Your task to perform on an android device: Go to Android settings Image 0: 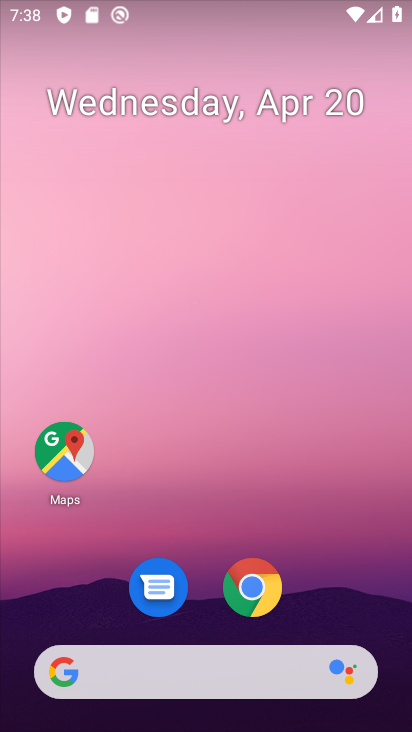
Step 0: drag from (346, 598) to (386, 84)
Your task to perform on an android device: Go to Android settings Image 1: 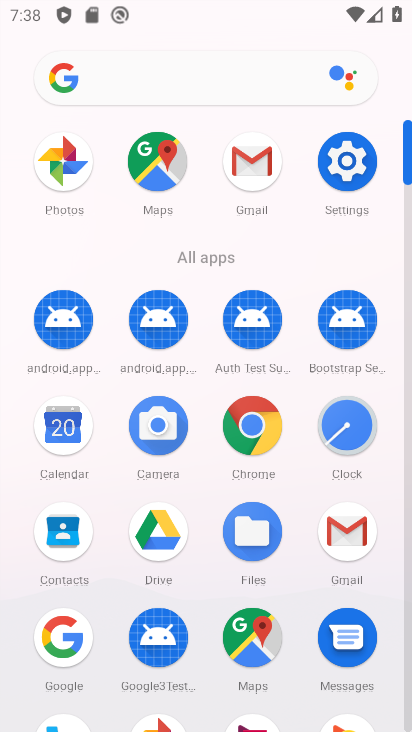
Step 1: click (344, 171)
Your task to perform on an android device: Go to Android settings Image 2: 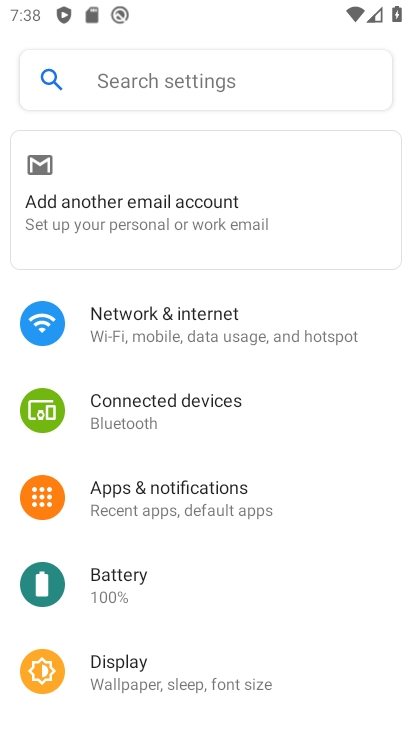
Step 2: drag from (372, 591) to (368, 274)
Your task to perform on an android device: Go to Android settings Image 3: 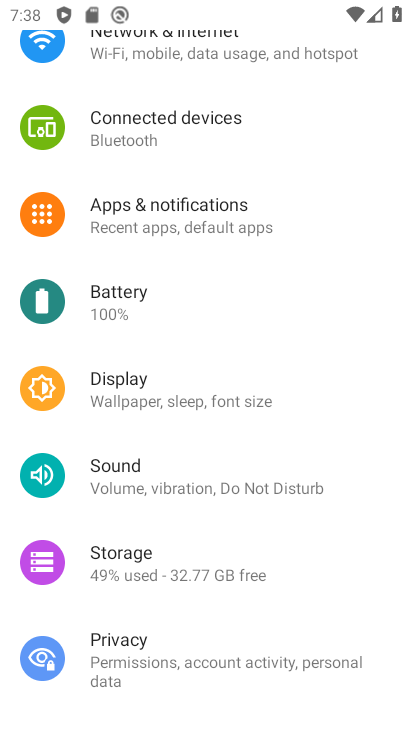
Step 3: drag from (355, 566) to (371, 243)
Your task to perform on an android device: Go to Android settings Image 4: 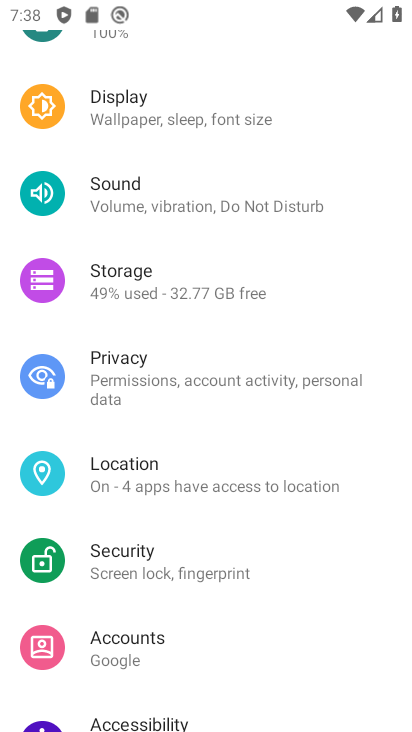
Step 4: drag from (358, 630) to (380, 246)
Your task to perform on an android device: Go to Android settings Image 5: 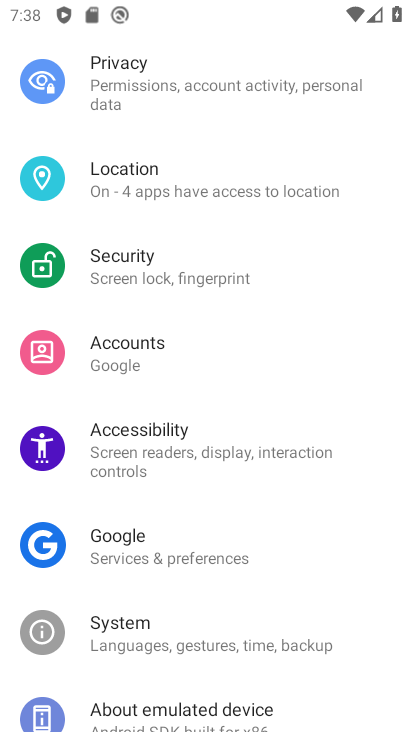
Step 5: drag from (374, 642) to (382, 352)
Your task to perform on an android device: Go to Android settings Image 6: 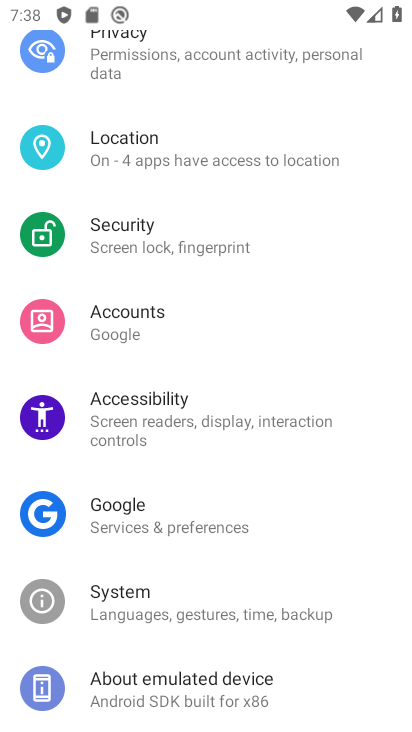
Step 6: click (312, 609)
Your task to perform on an android device: Go to Android settings Image 7: 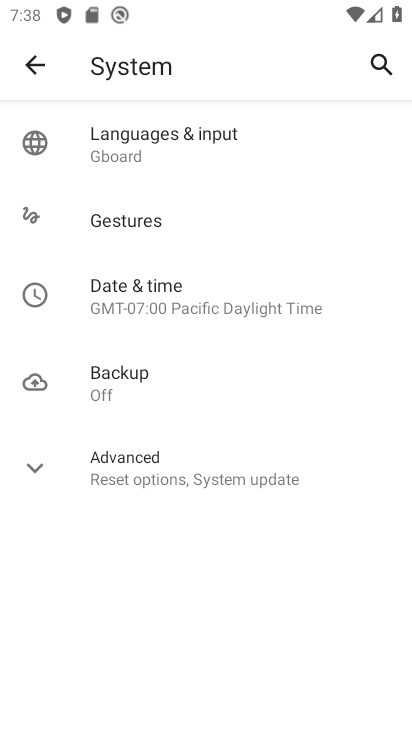
Step 7: click (220, 477)
Your task to perform on an android device: Go to Android settings Image 8: 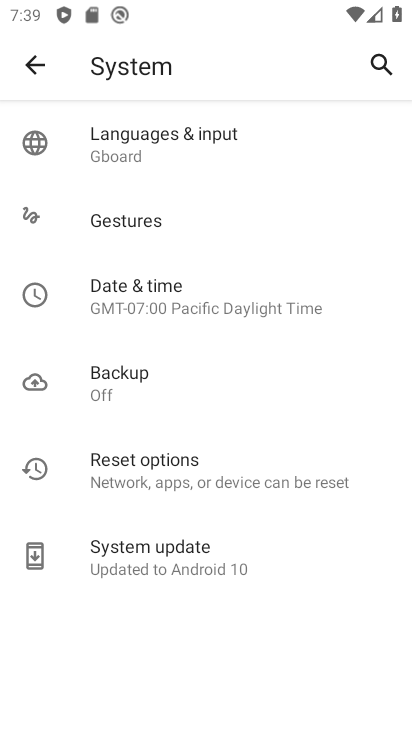
Step 8: task complete